Your task to perform on an android device: Open the calendar and show me this week's events? Image 0: 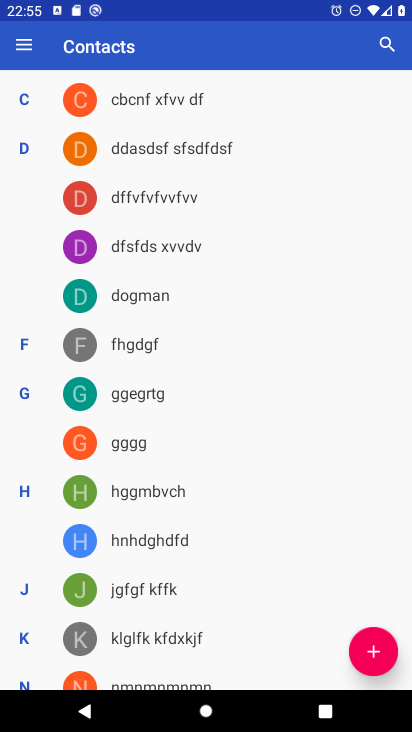
Step 0: press home button
Your task to perform on an android device: Open the calendar and show me this week's events? Image 1: 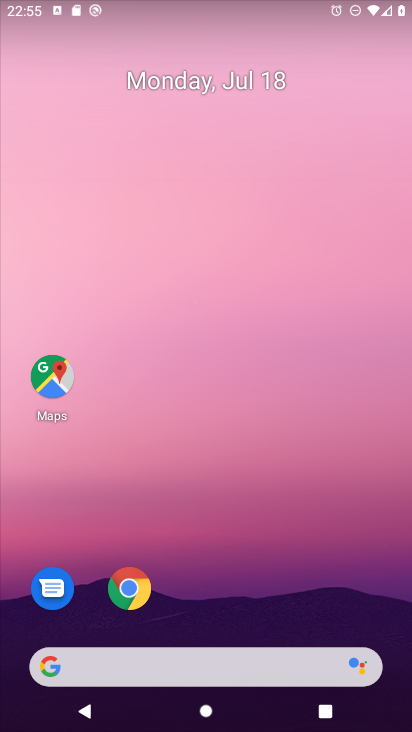
Step 1: drag from (384, 622) to (307, 201)
Your task to perform on an android device: Open the calendar and show me this week's events? Image 2: 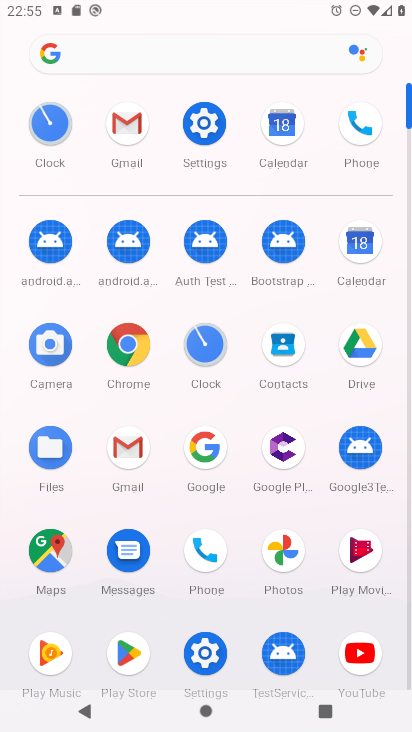
Step 2: click (358, 242)
Your task to perform on an android device: Open the calendar and show me this week's events? Image 3: 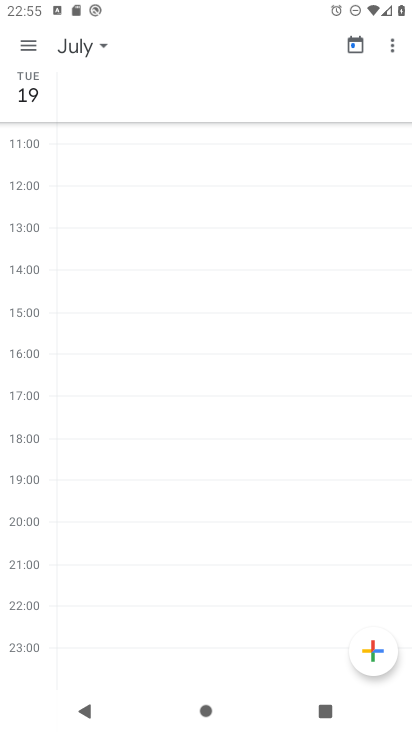
Step 3: click (25, 42)
Your task to perform on an android device: Open the calendar and show me this week's events? Image 4: 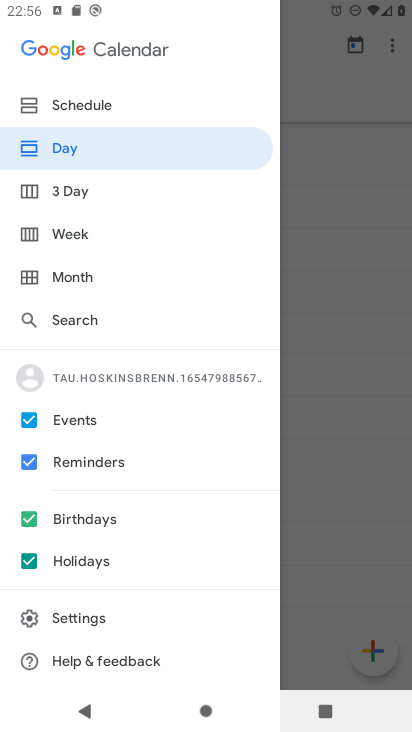
Step 4: click (68, 238)
Your task to perform on an android device: Open the calendar and show me this week's events? Image 5: 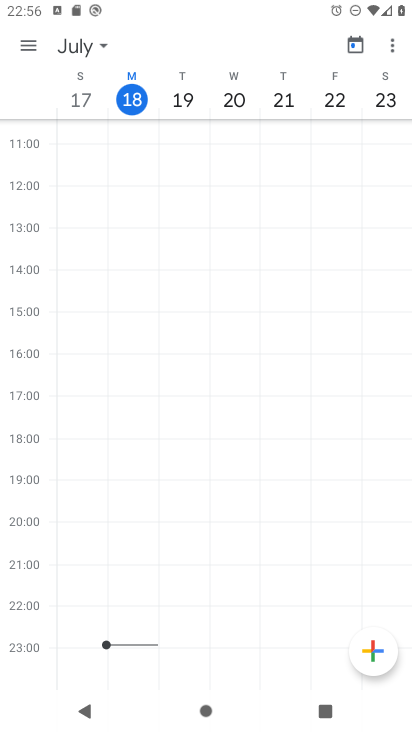
Step 5: task complete